Your task to perform on an android device: change the clock display to digital Image 0: 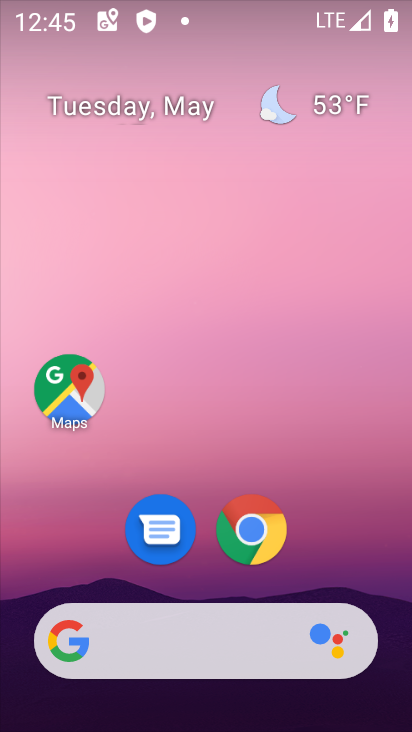
Step 0: drag from (218, 706) to (232, 148)
Your task to perform on an android device: change the clock display to digital Image 1: 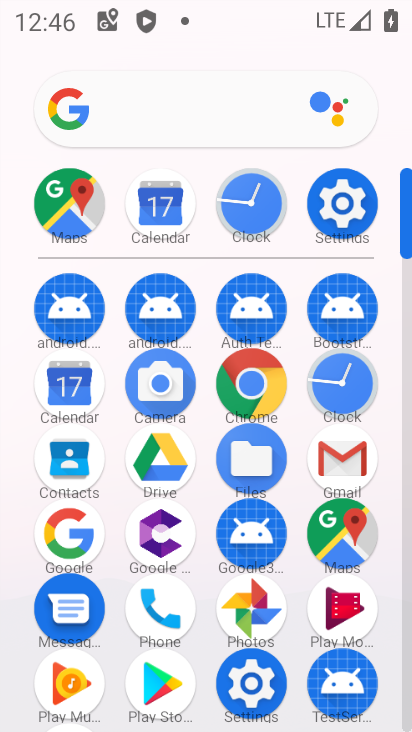
Step 1: click (348, 383)
Your task to perform on an android device: change the clock display to digital Image 2: 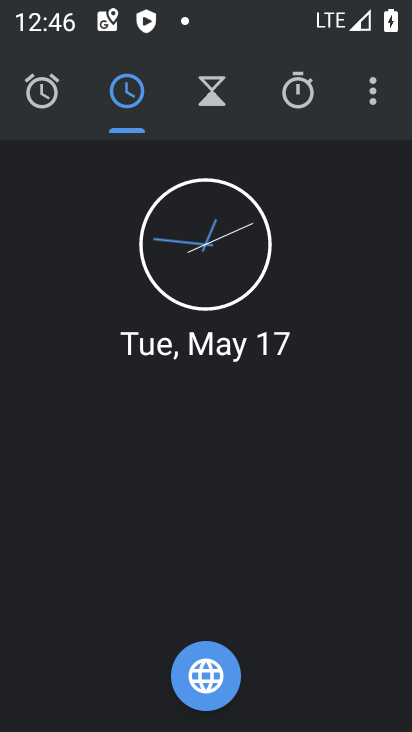
Step 2: click (372, 98)
Your task to perform on an android device: change the clock display to digital Image 3: 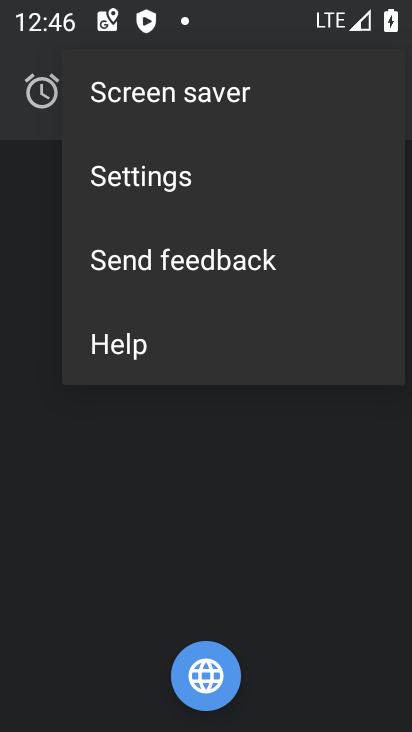
Step 3: click (156, 181)
Your task to perform on an android device: change the clock display to digital Image 4: 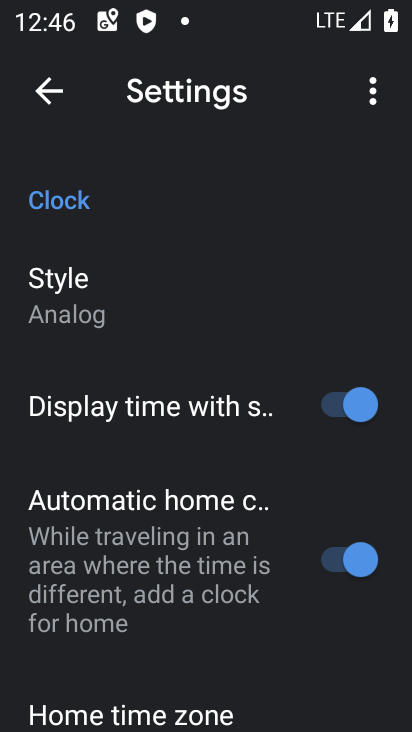
Step 4: click (69, 304)
Your task to perform on an android device: change the clock display to digital Image 5: 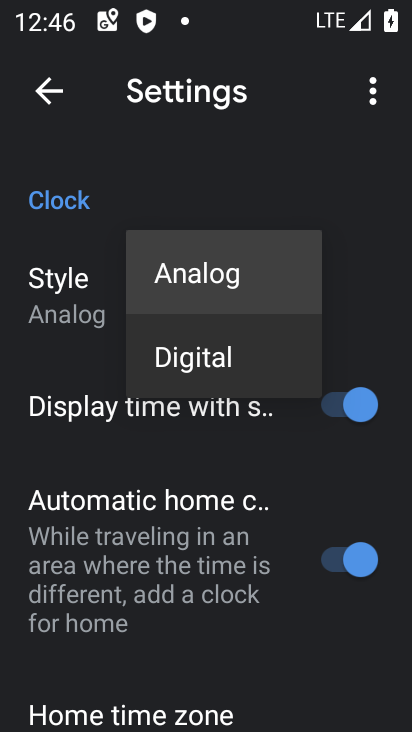
Step 5: click (187, 350)
Your task to perform on an android device: change the clock display to digital Image 6: 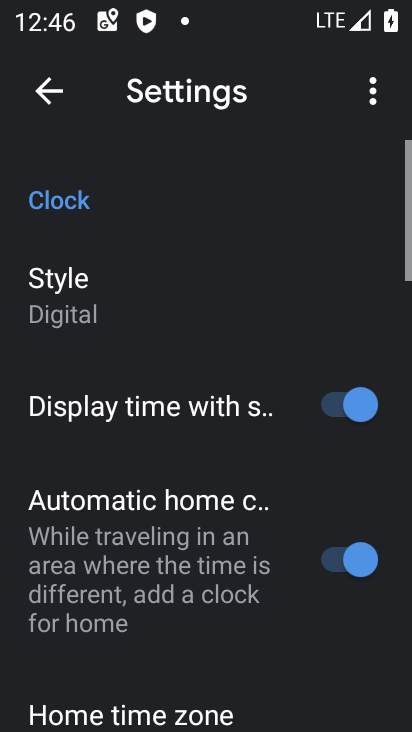
Step 6: task complete